Your task to perform on an android device: Search for "macbook pro 13 inch" on amazon, select the first entry, and add it to the cart. Image 0: 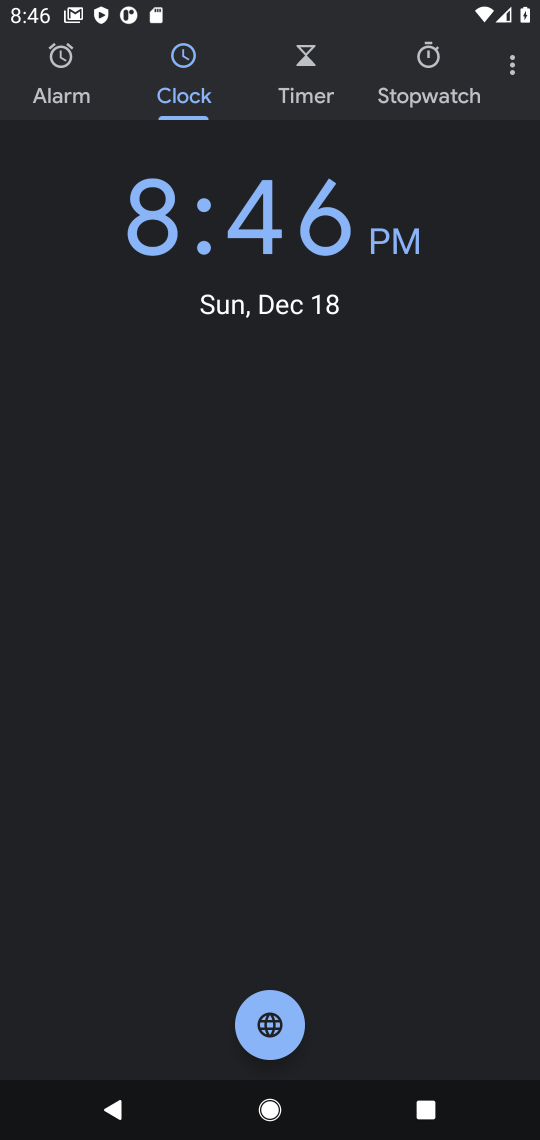
Step 0: press home button
Your task to perform on an android device: Search for "macbook pro 13 inch" on amazon, select the first entry, and add it to the cart. Image 1: 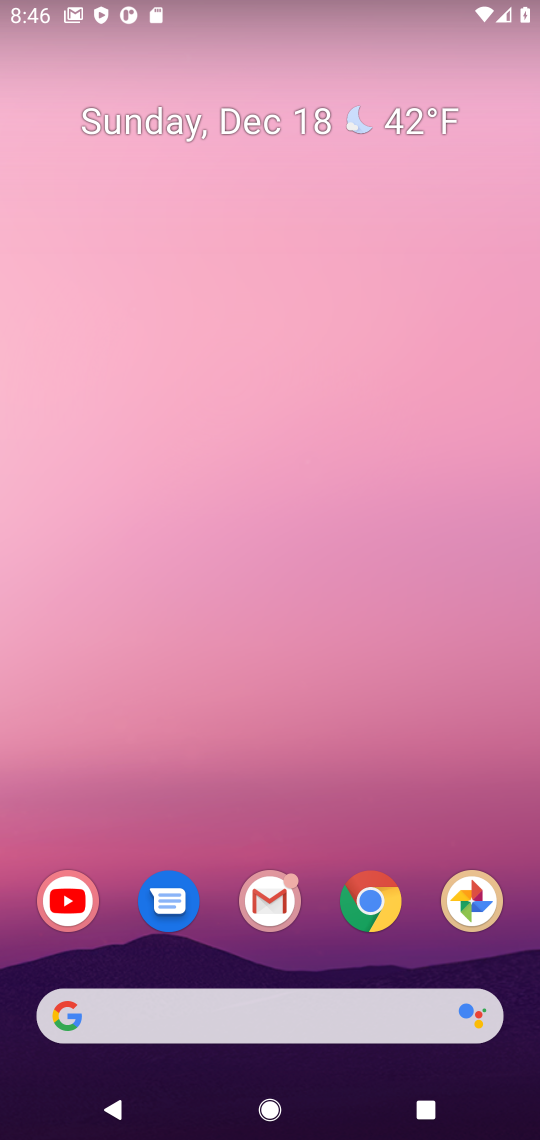
Step 1: click (366, 900)
Your task to perform on an android device: Search for "macbook pro 13 inch" on amazon, select the first entry, and add it to the cart. Image 2: 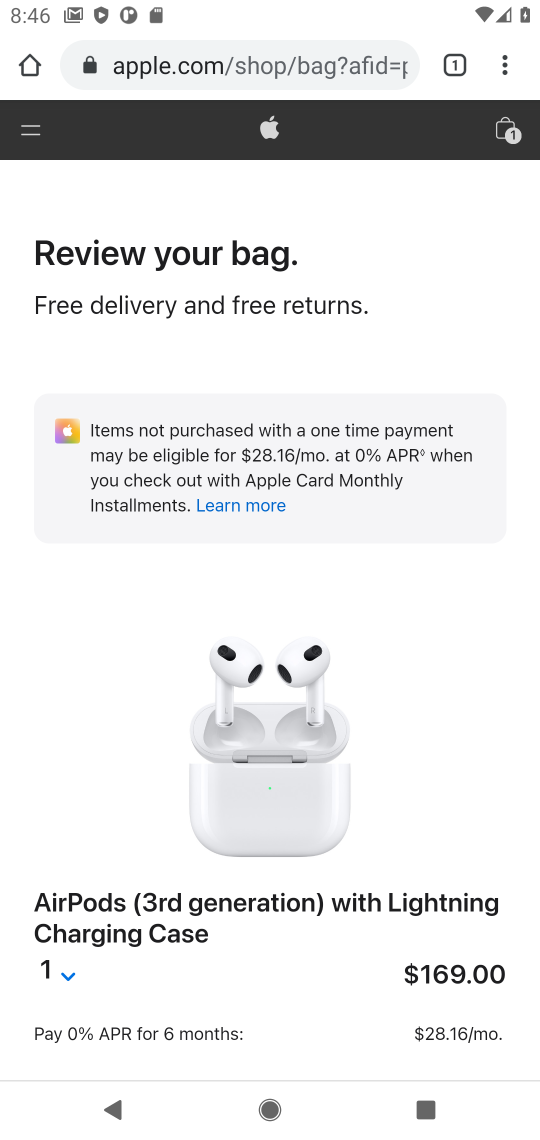
Step 2: click (261, 63)
Your task to perform on an android device: Search for "macbook pro 13 inch" on amazon, select the first entry, and add it to the cart. Image 3: 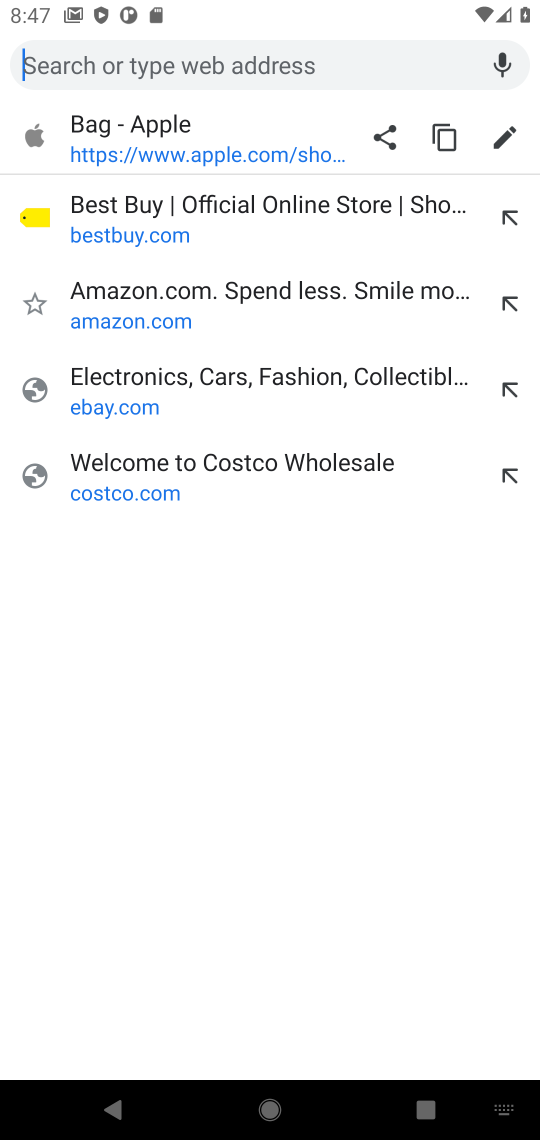
Step 3: click (137, 298)
Your task to perform on an android device: Search for "macbook pro 13 inch" on amazon, select the first entry, and add it to the cart. Image 4: 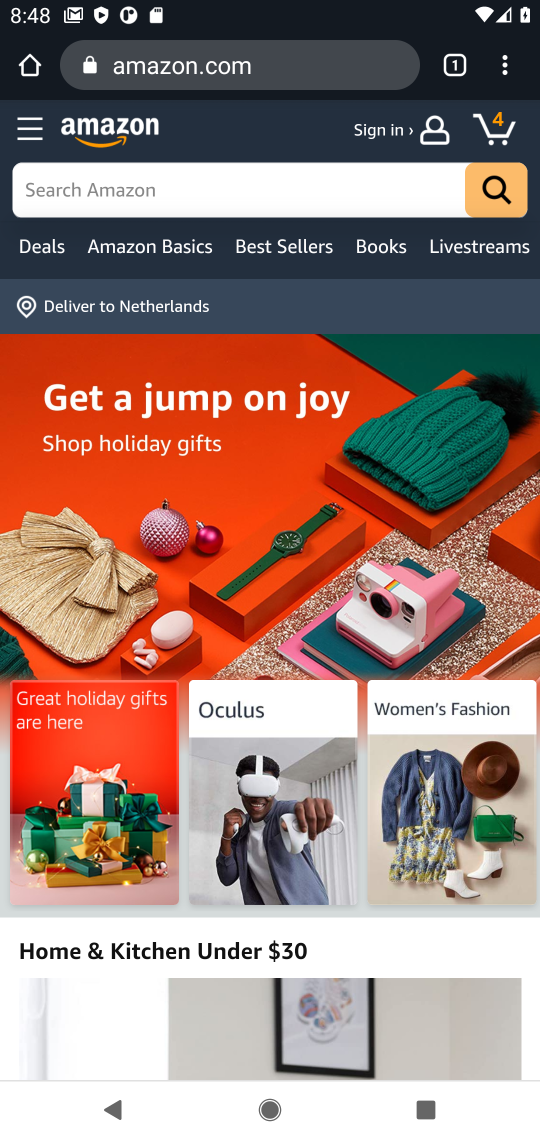
Step 4: click (111, 201)
Your task to perform on an android device: Search for "macbook pro 13 inch" on amazon, select the first entry, and add it to the cart. Image 5: 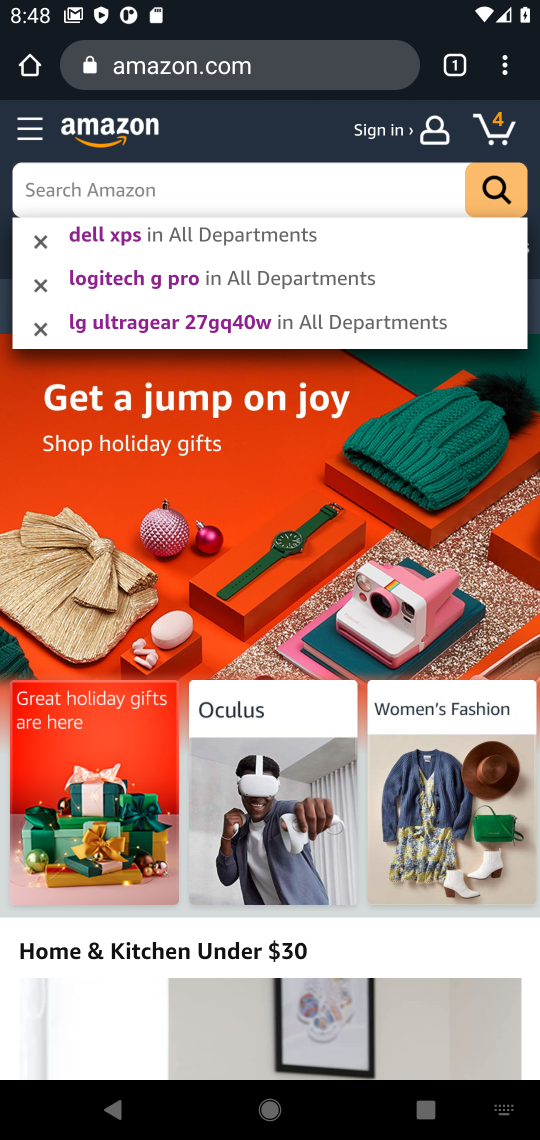
Step 5: type "macbook pro 13"
Your task to perform on an android device: Search for "macbook pro 13 inch" on amazon, select the first entry, and add it to the cart. Image 6: 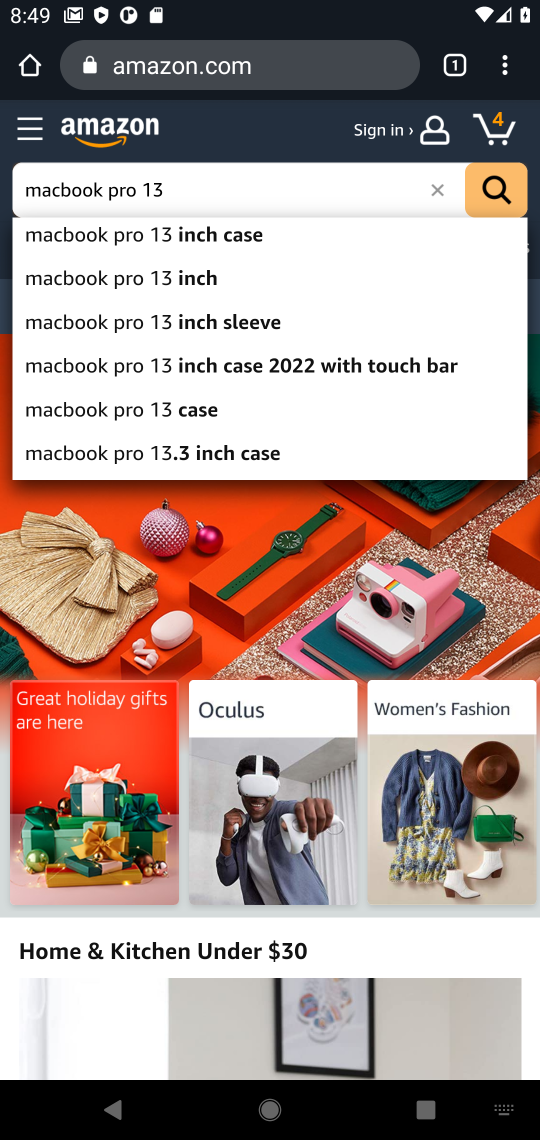
Step 6: click (486, 203)
Your task to perform on an android device: Search for "macbook pro 13 inch" on amazon, select the first entry, and add it to the cart. Image 7: 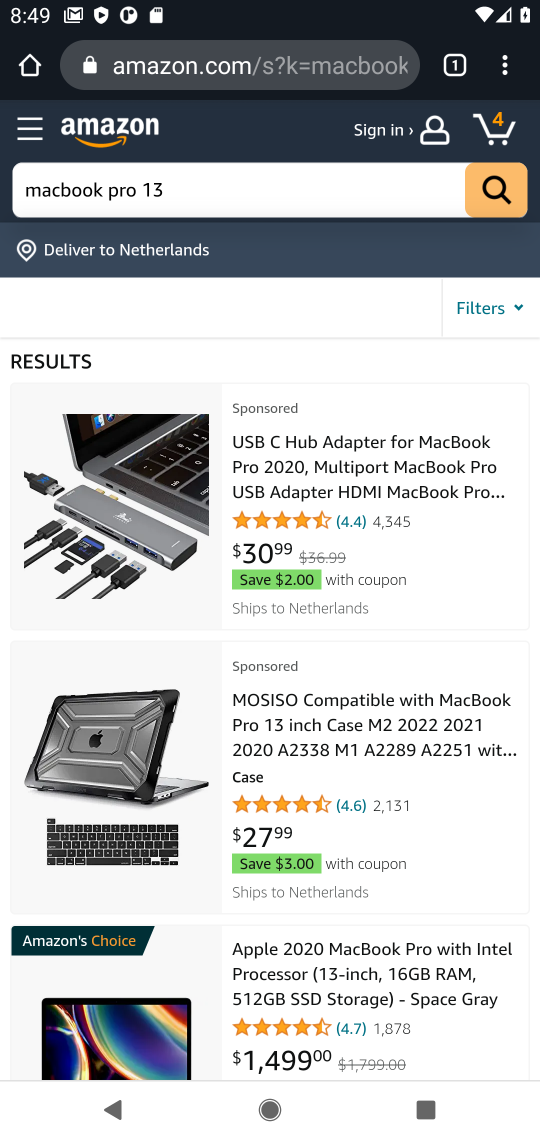
Step 7: click (376, 443)
Your task to perform on an android device: Search for "macbook pro 13 inch" on amazon, select the first entry, and add it to the cart. Image 8: 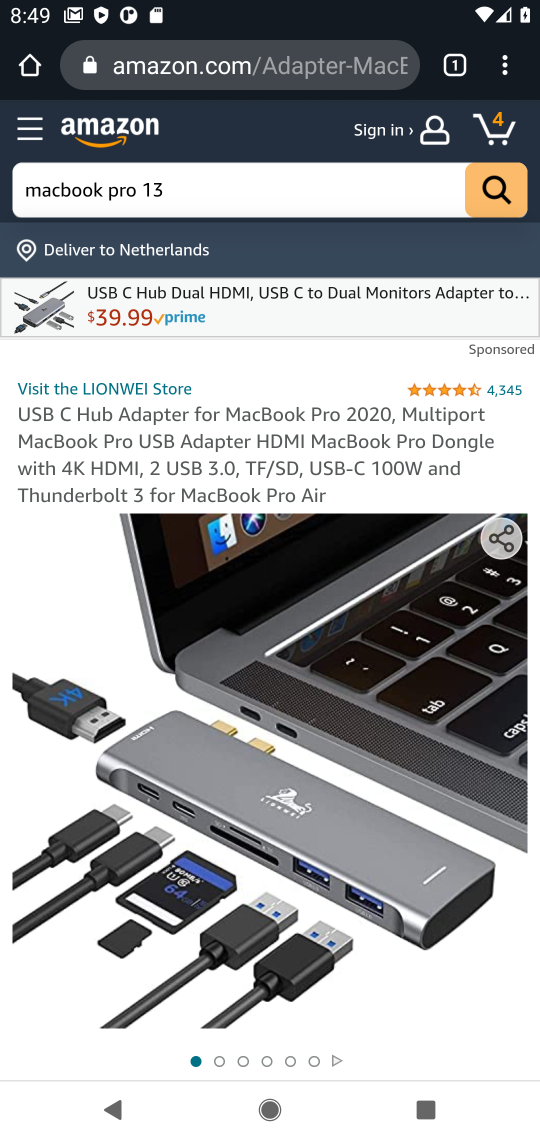
Step 8: task complete